Your task to perform on an android device: see creations saved in the google photos Image 0: 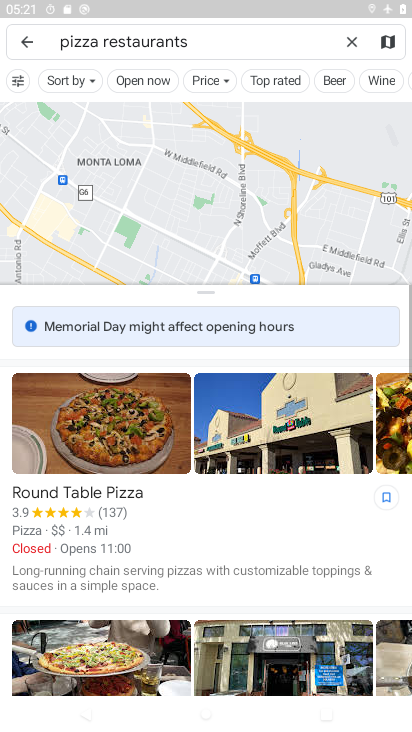
Step 0: press home button
Your task to perform on an android device: see creations saved in the google photos Image 1: 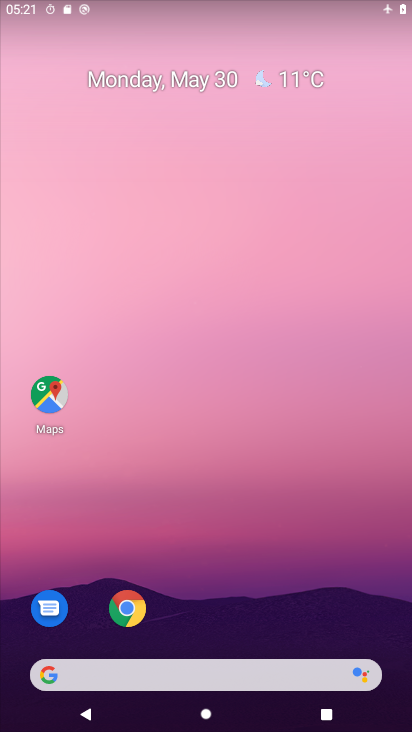
Step 1: drag from (273, 386) to (172, 37)
Your task to perform on an android device: see creations saved in the google photos Image 2: 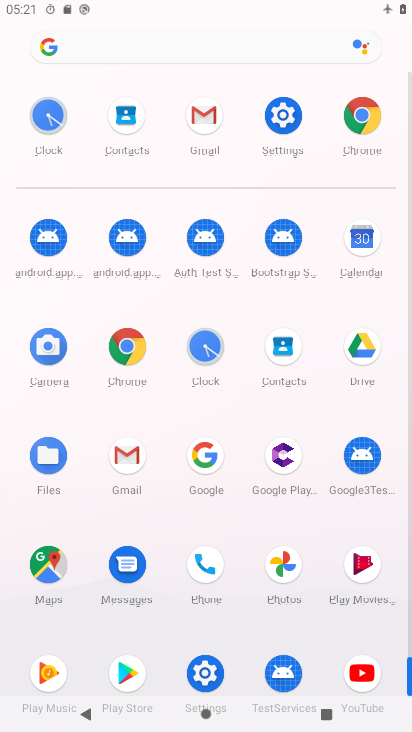
Step 2: click (283, 558)
Your task to perform on an android device: see creations saved in the google photos Image 3: 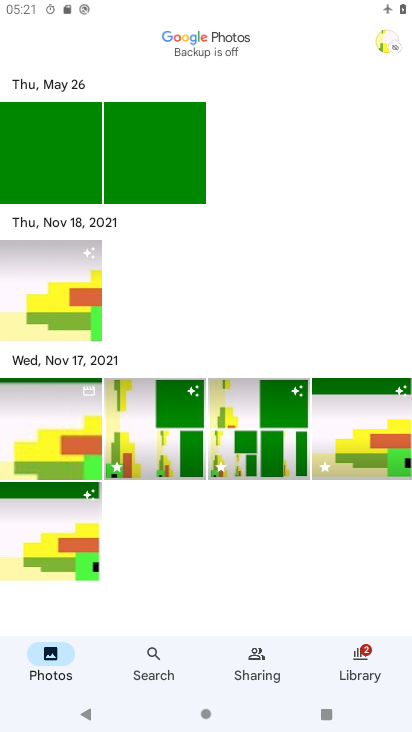
Step 3: click (169, 659)
Your task to perform on an android device: see creations saved in the google photos Image 4: 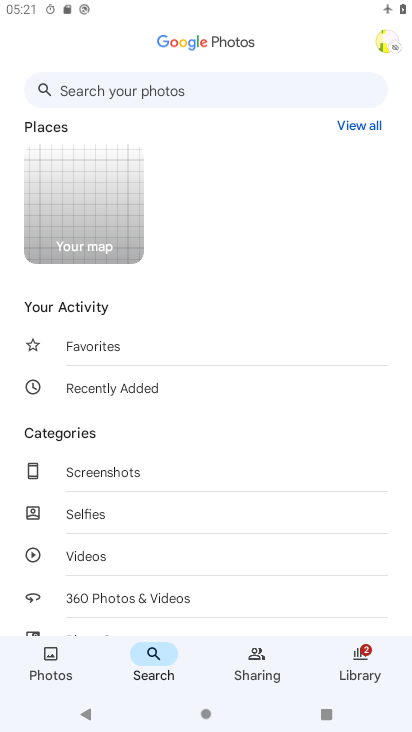
Step 4: click (160, 87)
Your task to perform on an android device: see creations saved in the google photos Image 5: 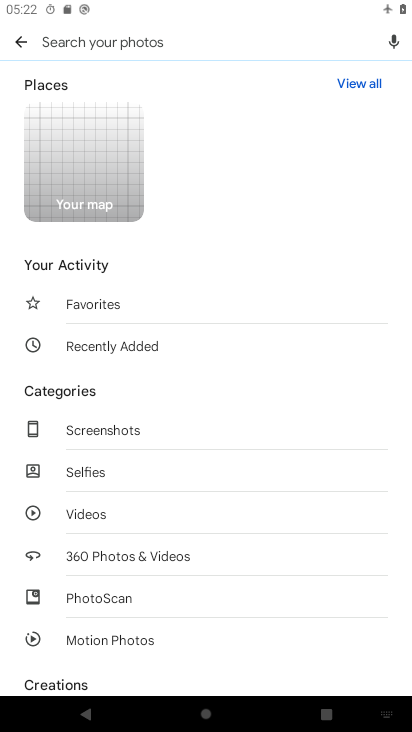
Step 5: type "creations"
Your task to perform on an android device: see creations saved in the google photos Image 6: 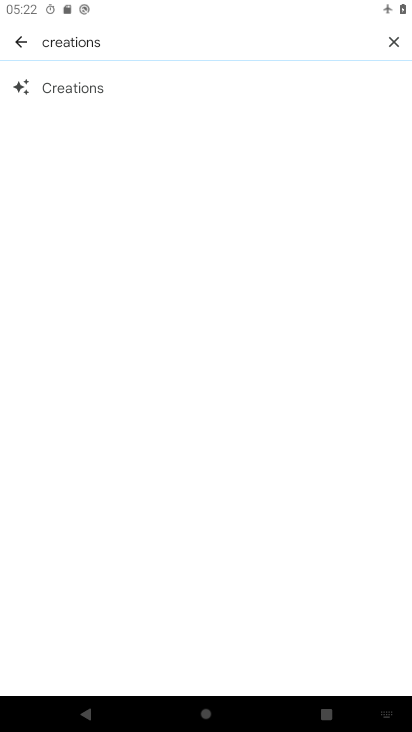
Step 6: click (127, 79)
Your task to perform on an android device: see creations saved in the google photos Image 7: 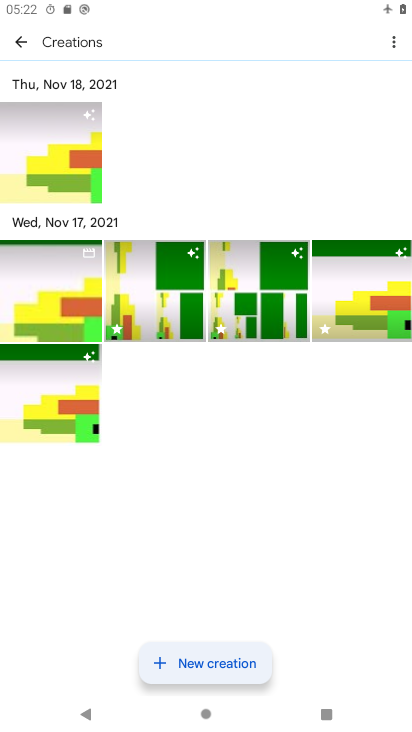
Step 7: task complete